Your task to perform on an android device: Open calendar and show me the first week of next month Image 0: 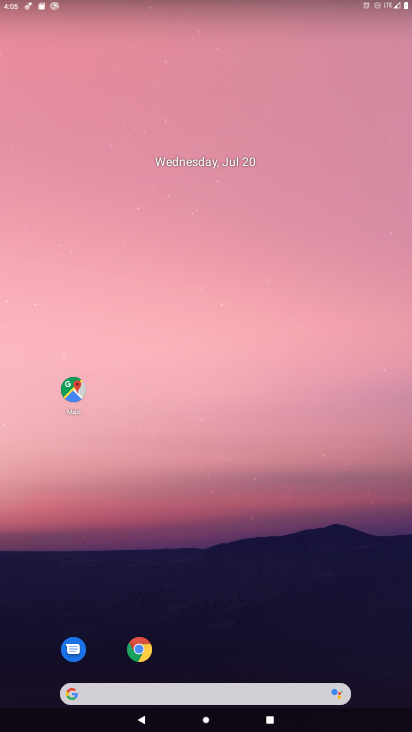
Step 0: drag from (245, 686) to (261, 140)
Your task to perform on an android device: Open calendar and show me the first week of next month Image 1: 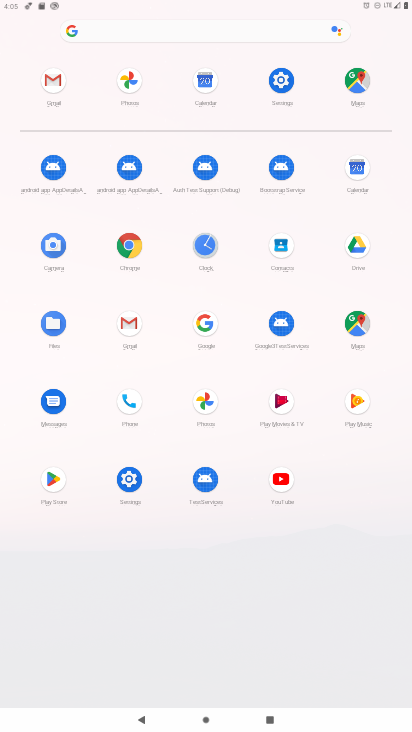
Step 1: click (356, 166)
Your task to perform on an android device: Open calendar and show me the first week of next month Image 2: 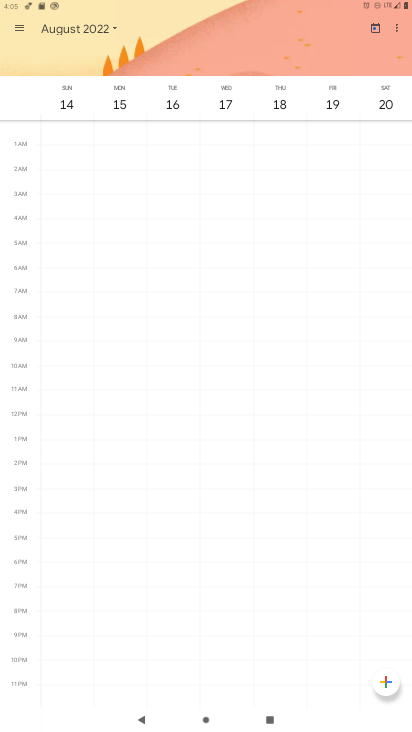
Step 2: click (375, 27)
Your task to perform on an android device: Open calendar and show me the first week of next month Image 3: 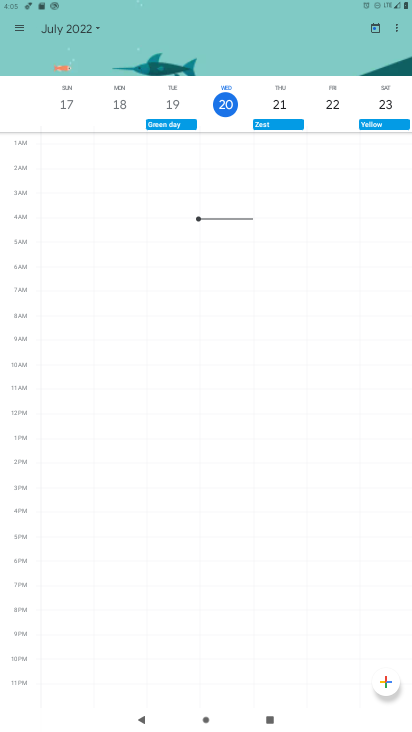
Step 3: click (99, 24)
Your task to perform on an android device: Open calendar and show me the first week of next month Image 4: 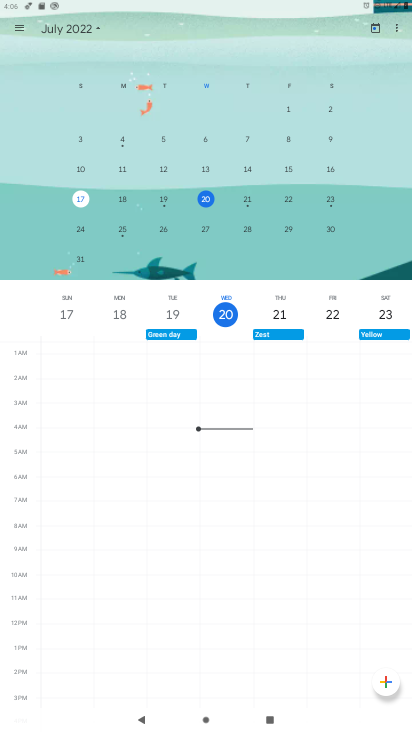
Step 4: drag from (361, 206) to (24, 213)
Your task to perform on an android device: Open calendar and show me the first week of next month Image 5: 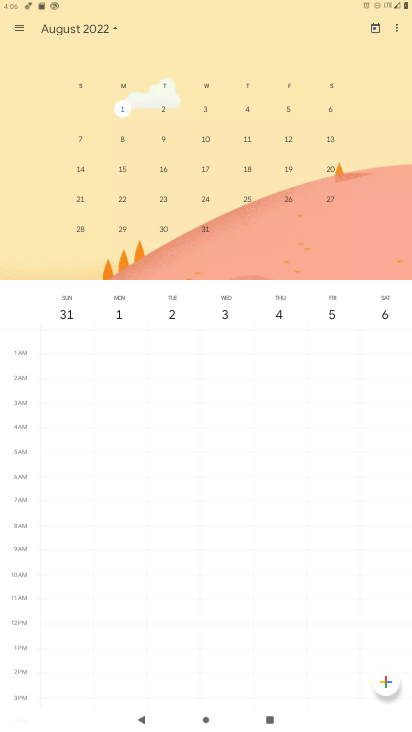
Step 5: click (126, 107)
Your task to perform on an android device: Open calendar and show me the first week of next month Image 6: 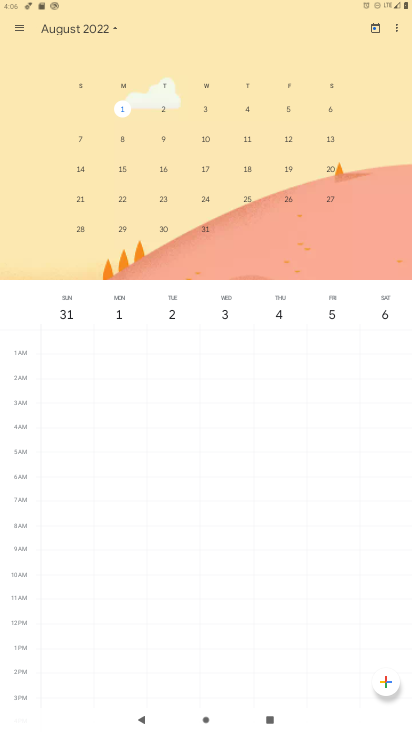
Step 6: click (22, 30)
Your task to perform on an android device: Open calendar and show me the first week of next month Image 7: 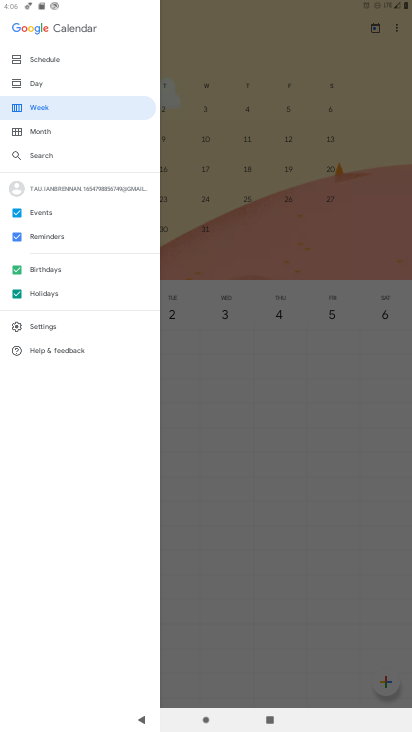
Step 7: click (59, 110)
Your task to perform on an android device: Open calendar and show me the first week of next month Image 8: 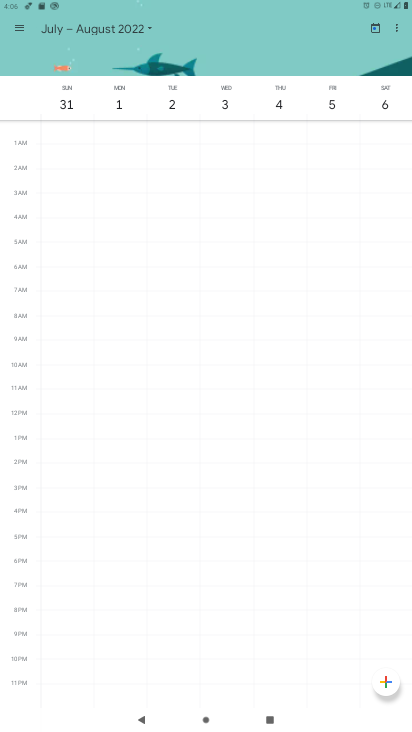
Step 8: task complete